Your task to perform on an android device: Open Android settings Image 0: 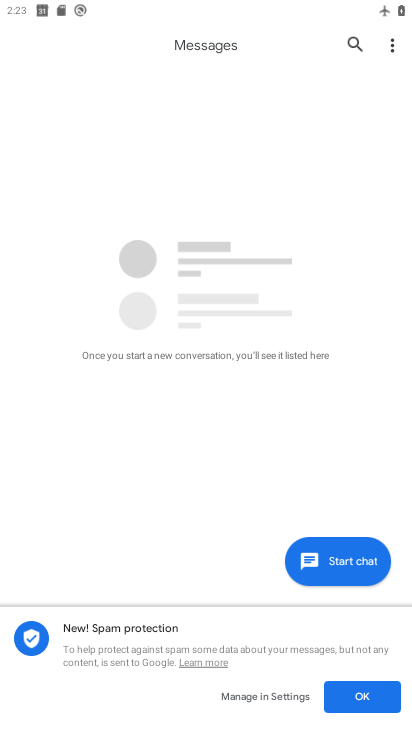
Step 0: press home button
Your task to perform on an android device: Open Android settings Image 1: 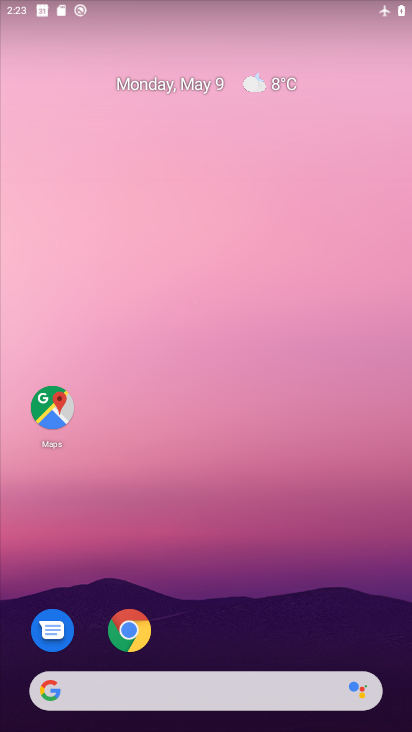
Step 1: drag from (229, 586) to (336, 36)
Your task to perform on an android device: Open Android settings Image 2: 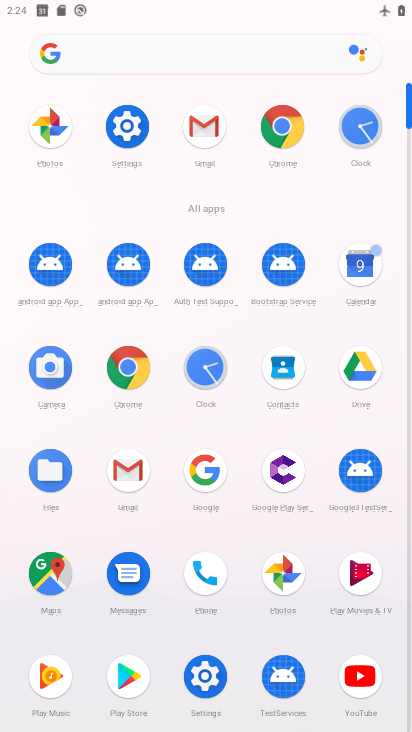
Step 2: click (214, 675)
Your task to perform on an android device: Open Android settings Image 3: 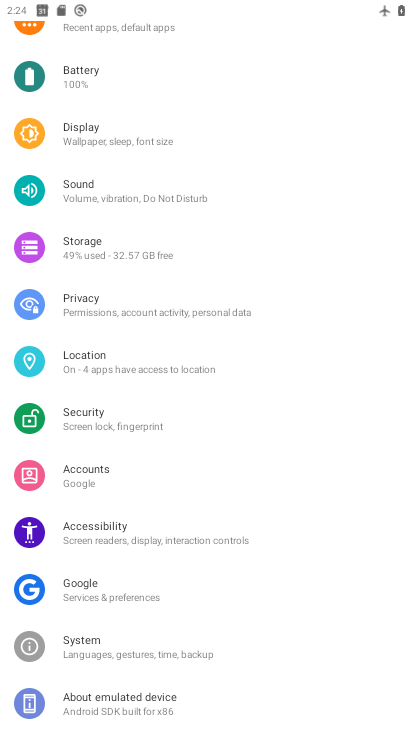
Step 3: drag from (158, 582) to (187, 407)
Your task to perform on an android device: Open Android settings Image 4: 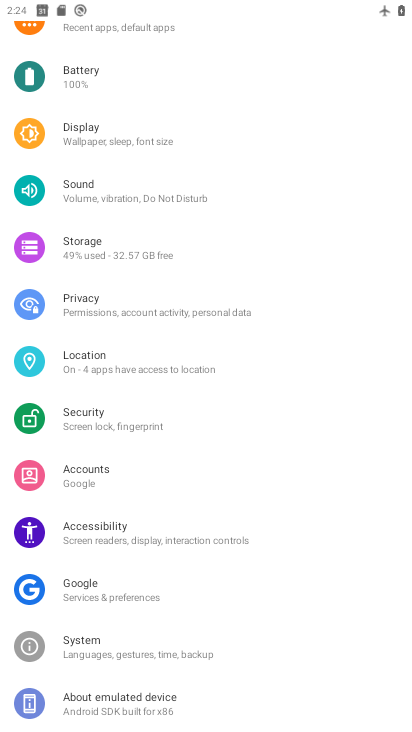
Step 4: click (108, 683)
Your task to perform on an android device: Open Android settings Image 5: 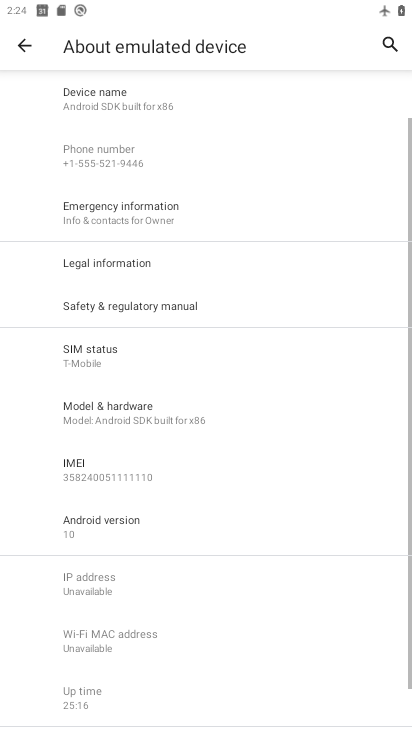
Step 5: drag from (157, 591) to (190, 257)
Your task to perform on an android device: Open Android settings Image 6: 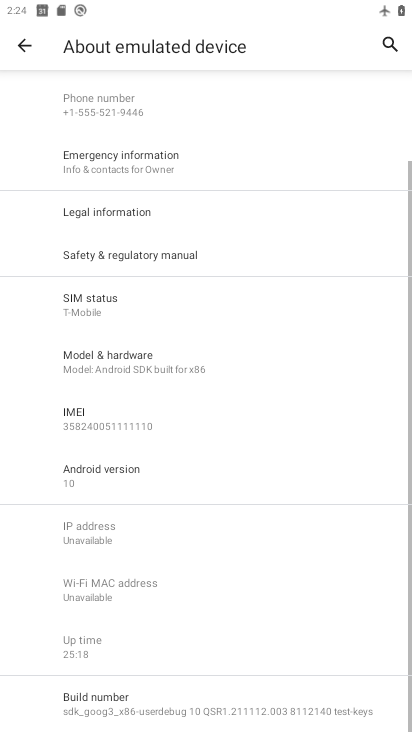
Step 6: drag from (159, 571) to (177, 449)
Your task to perform on an android device: Open Android settings Image 7: 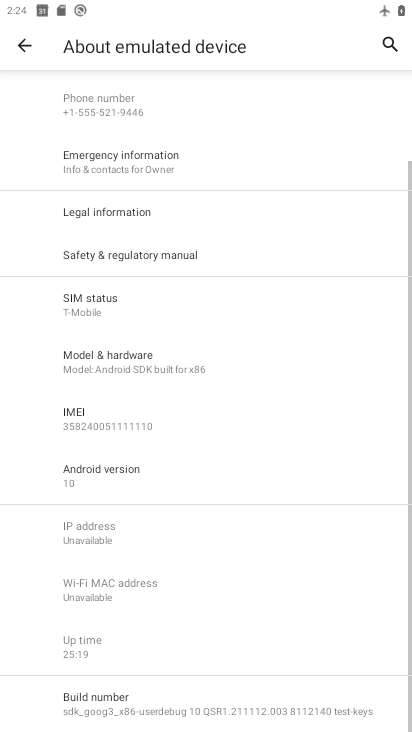
Step 7: drag from (182, 248) to (200, 571)
Your task to perform on an android device: Open Android settings Image 8: 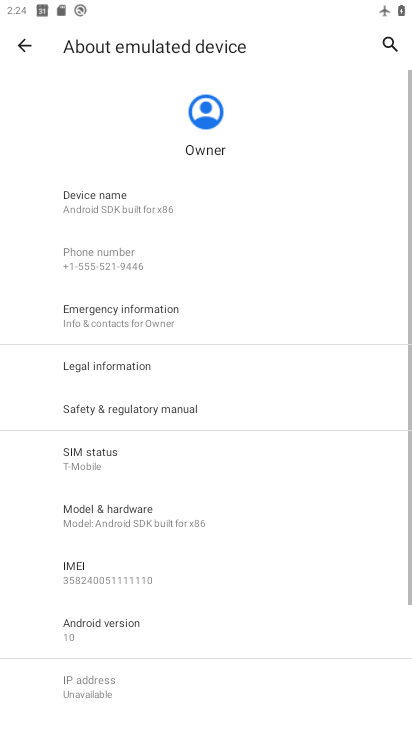
Step 8: click (28, 44)
Your task to perform on an android device: Open Android settings Image 9: 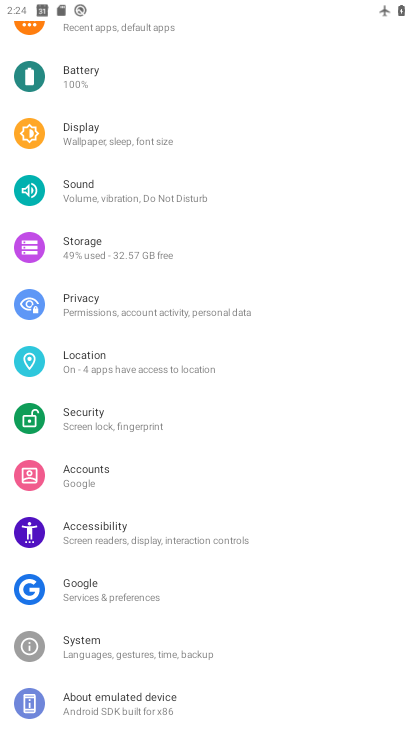
Step 9: drag from (141, 573) to (160, 363)
Your task to perform on an android device: Open Android settings Image 10: 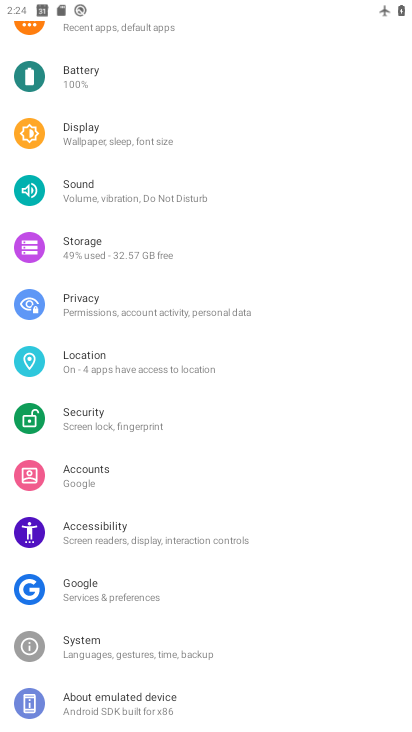
Step 10: click (125, 684)
Your task to perform on an android device: Open Android settings Image 11: 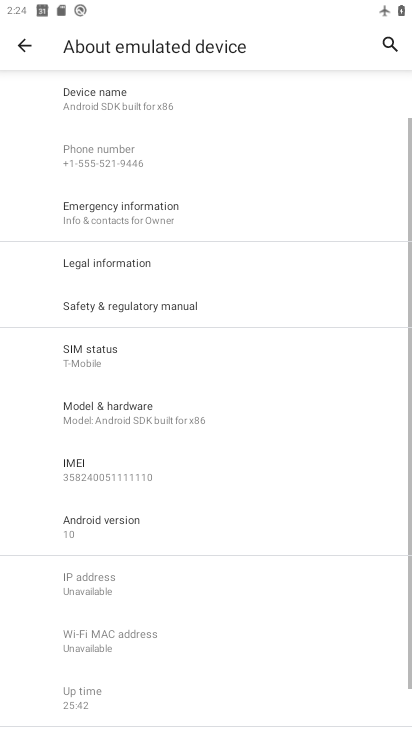
Step 11: click (143, 534)
Your task to perform on an android device: Open Android settings Image 12: 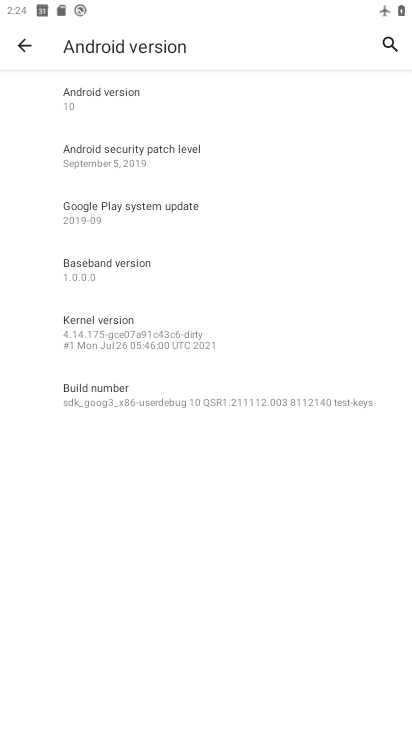
Step 12: task complete